Your task to perform on an android device: read, delete, or share a saved page in the chrome app Image 0: 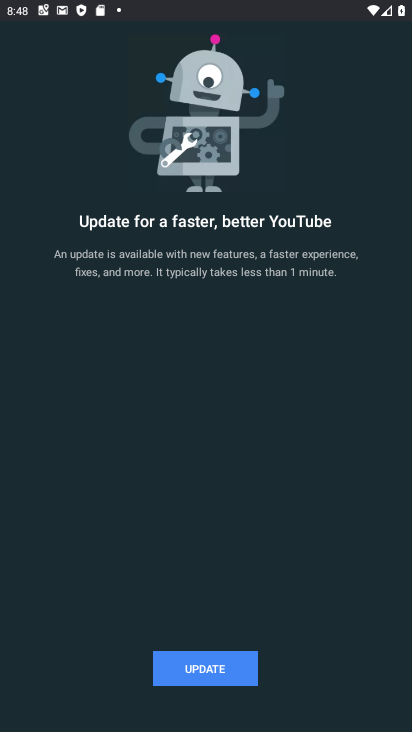
Step 0: press home button
Your task to perform on an android device: read, delete, or share a saved page in the chrome app Image 1: 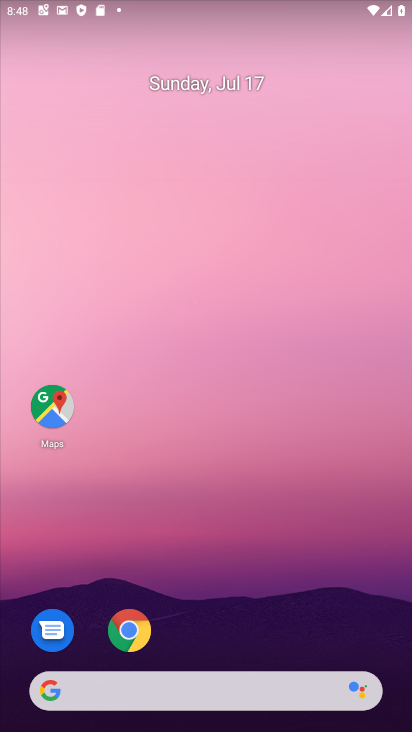
Step 1: drag from (338, 624) to (360, 169)
Your task to perform on an android device: read, delete, or share a saved page in the chrome app Image 2: 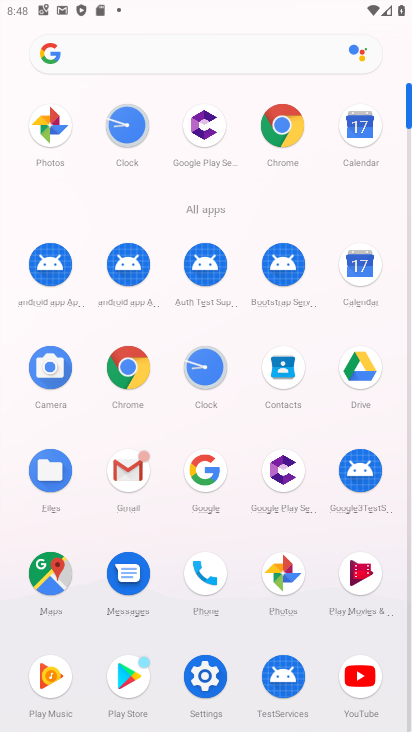
Step 2: click (132, 365)
Your task to perform on an android device: read, delete, or share a saved page in the chrome app Image 3: 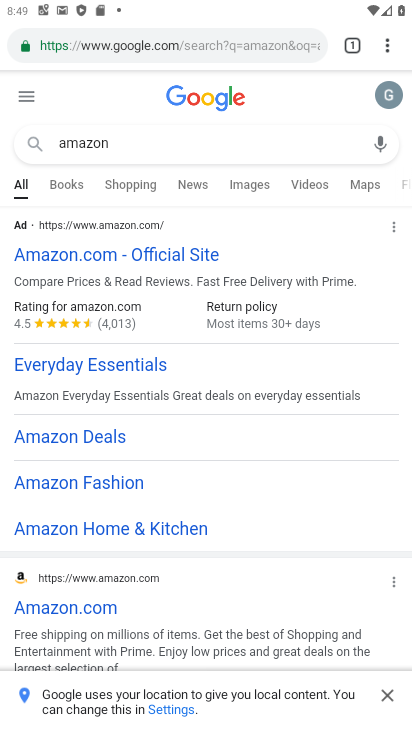
Step 3: click (390, 55)
Your task to perform on an android device: read, delete, or share a saved page in the chrome app Image 4: 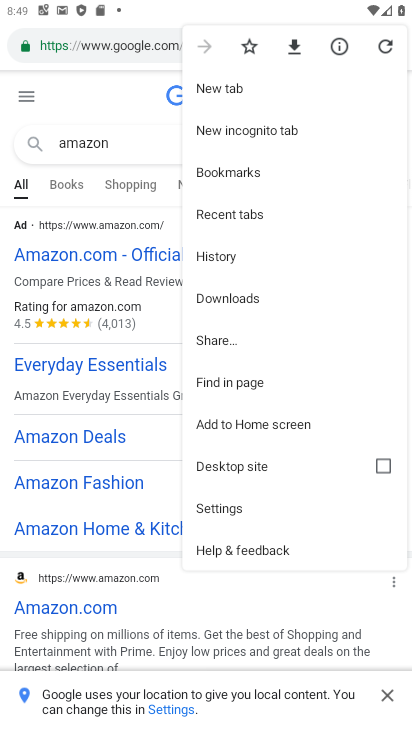
Step 4: click (248, 300)
Your task to perform on an android device: read, delete, or share a saved page in the chrome app Image 5: 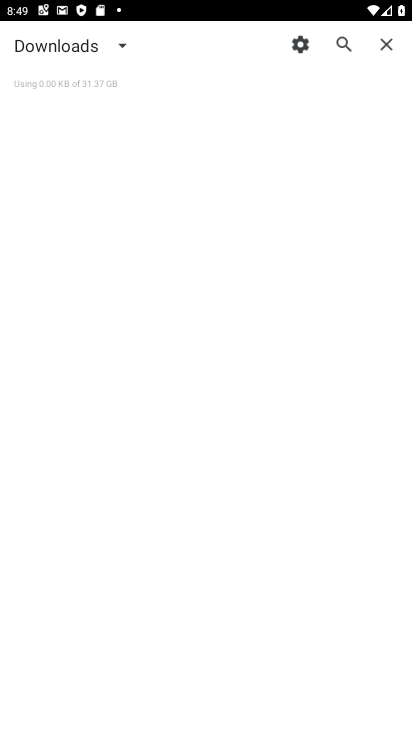
Step 5: click (115, 40)
Your task to perform on an android device: read, delete, or share a saved page in the chrome app Image 6: 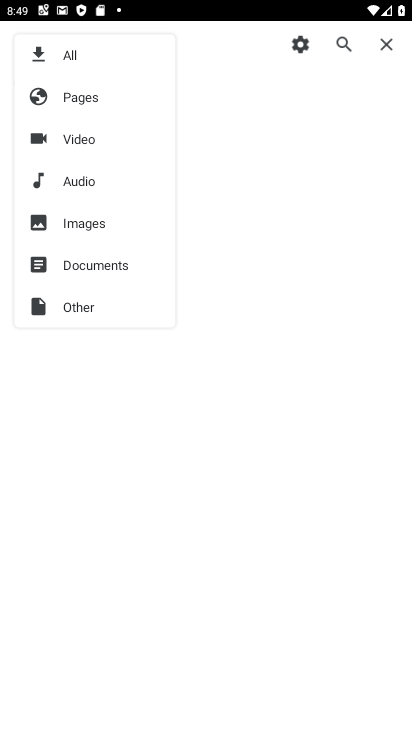
Step 6: click (85, 101)
Your task to perform on an android device: read, delete, or share a saved page in the chrome app Image 7: 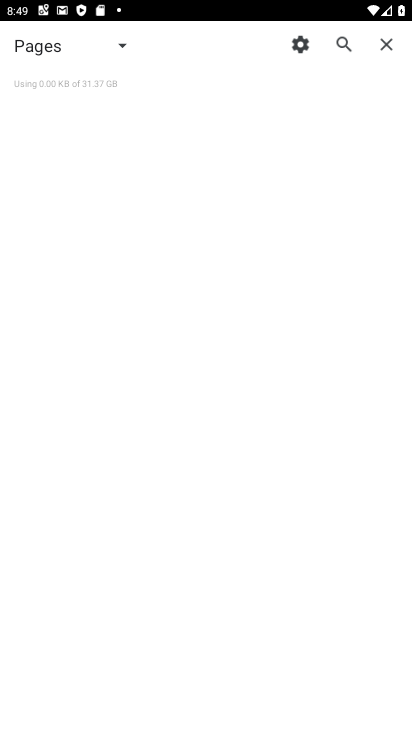
Step 7: task complete